Your task to perform on an android device: uninstall "Venmo" Image 0: 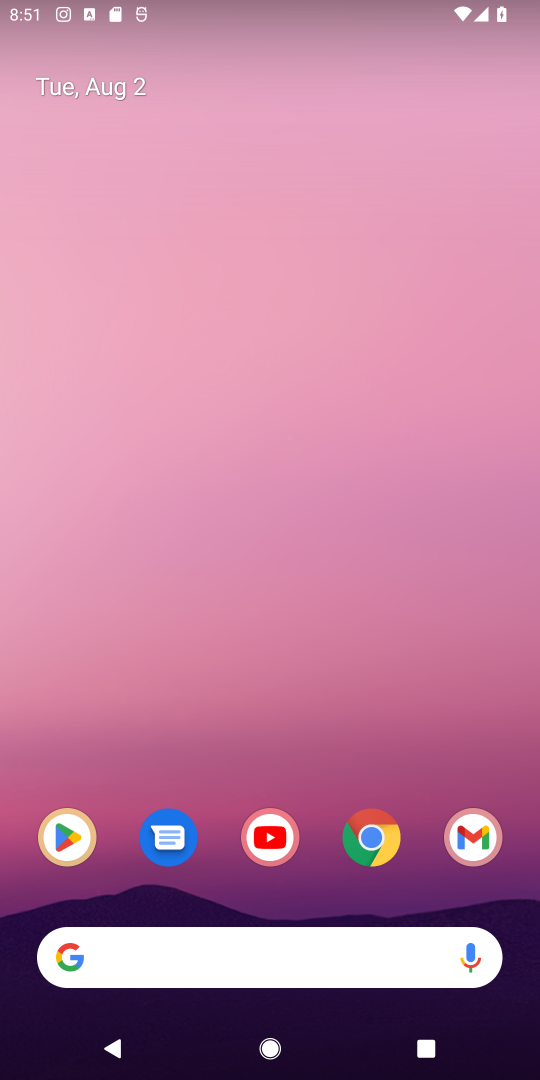
Step 0: click (74, 830)
Your task to perform on an android device: uninstall "Venmo" Image 1: 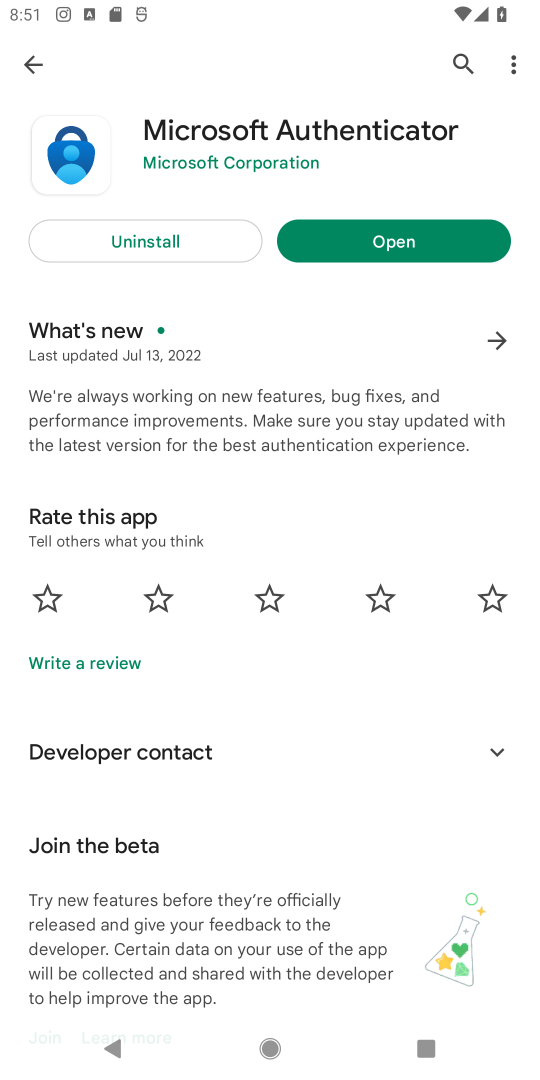
Step 1: click (460, 67)
Your task to perform on an android device: uninstall "Venmo" Image 2: 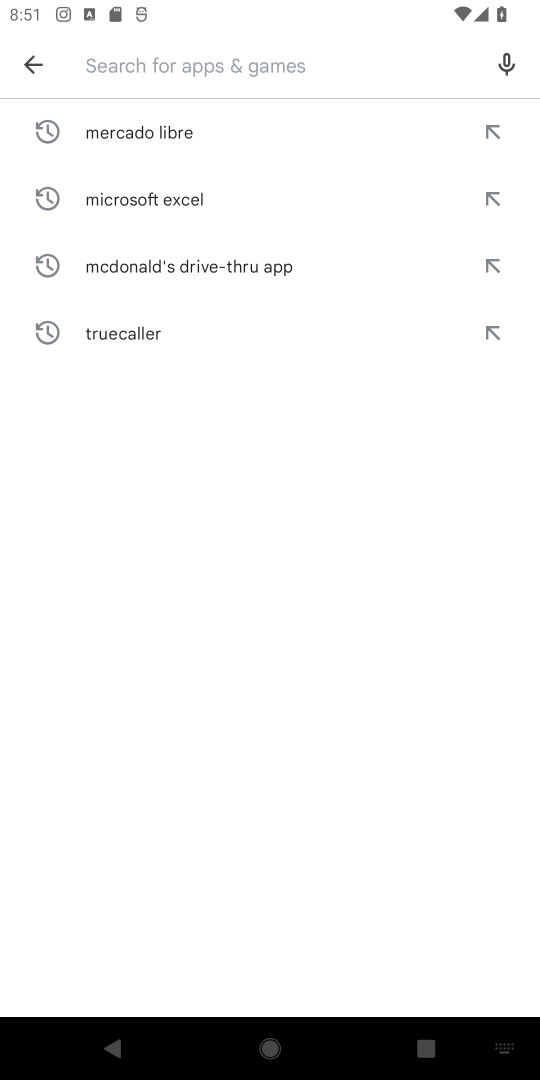
Step 2: type "Venmo"
Your task to perform on an android device: uninstall "Venmo" Image 3: 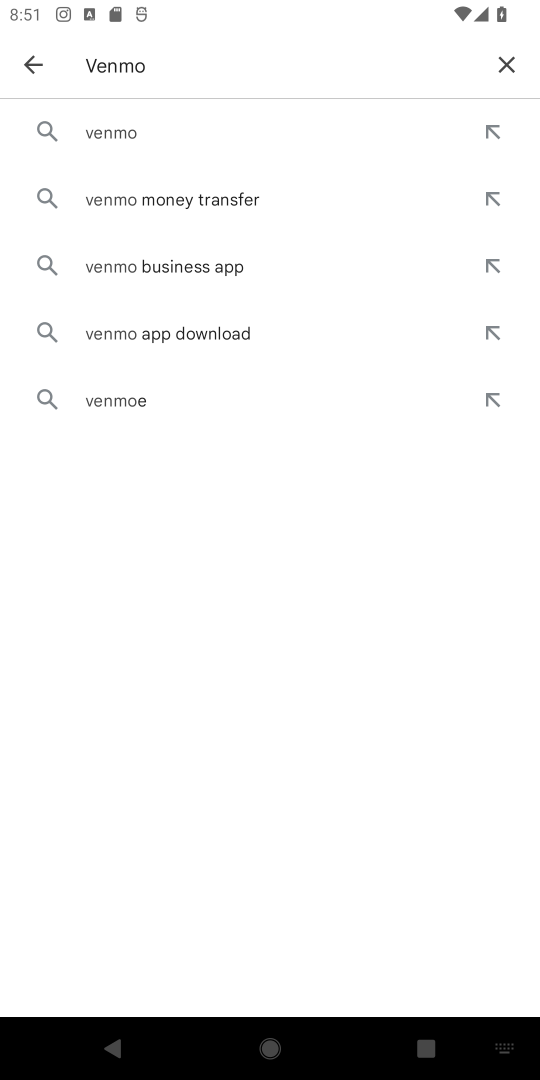
Step 3: click (109, 130)
Your task to perform on an android device: uninstall "Venmo" Image 4: 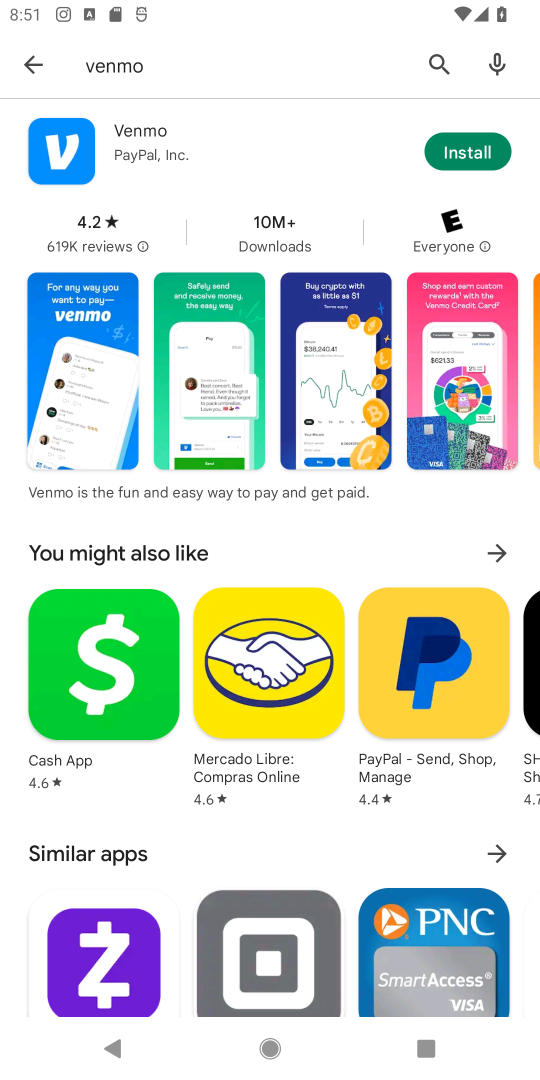
Step 4: task complete